Your task to perform on an android device: toggle notification dots Image 0: 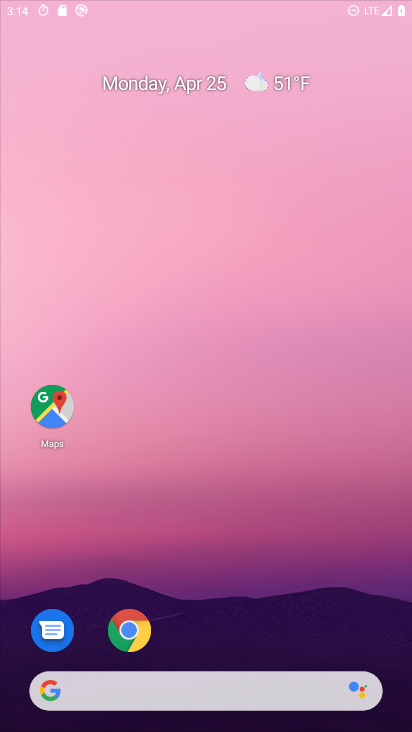
Step 0: drag from (222, 484) to (274, 187)
Your task to perform on an android device: toggle notification dots Image 1: 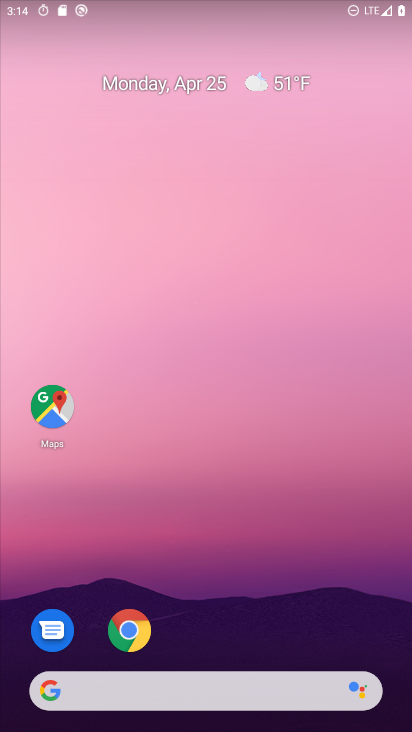
Step 1: drag from (172, 631) to (204, 249)
Your task to perform on an android device: toggle notification dots Image 2: 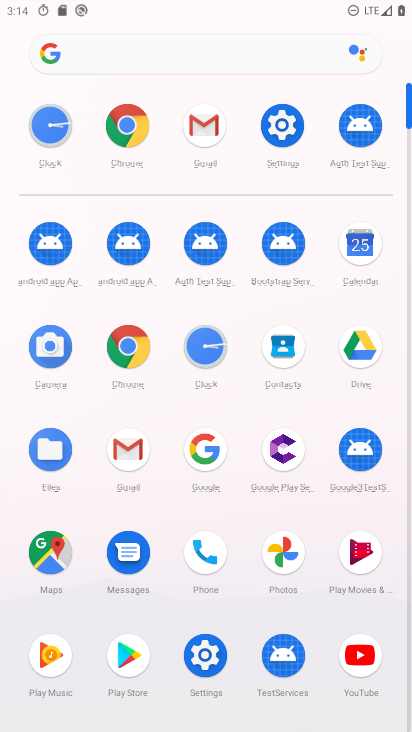
Step 2: click (196, 665)
Your task to perform on an android device: toggle notification dots Image 3: 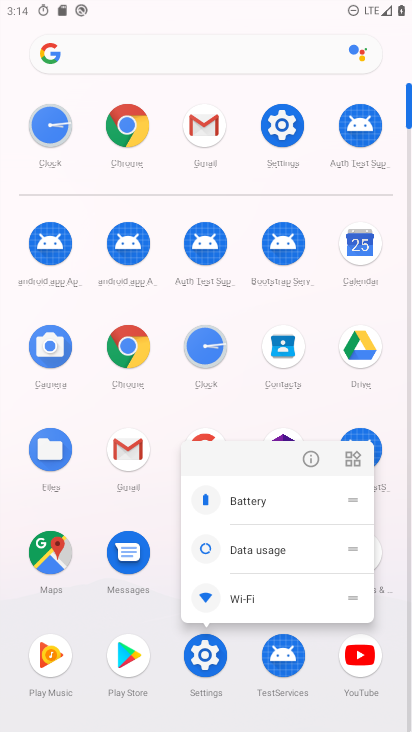
Step 3: click (318, 460)
Your task to perform on an android device: toggle notification dots Image 4: 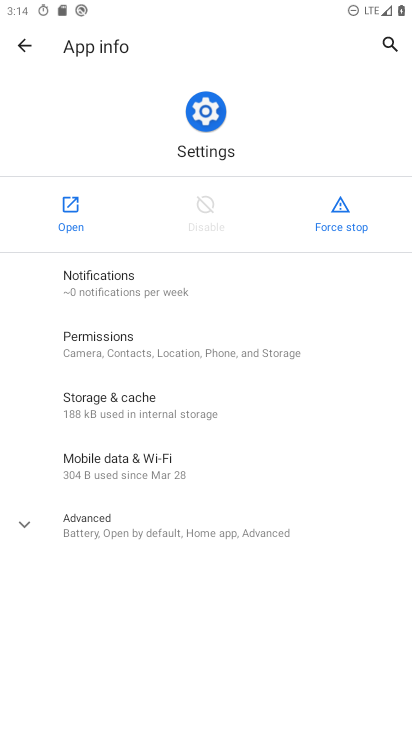
Step 4: click (67, 211)
Your task to perform on an android device: toggle notification dots Image 5: 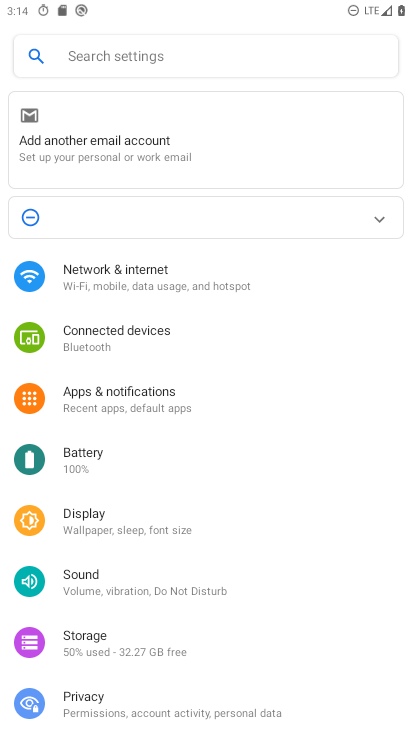
Step 5: click (157, 385)
Your task to perform on an android device: toggle notification dots Image 6: 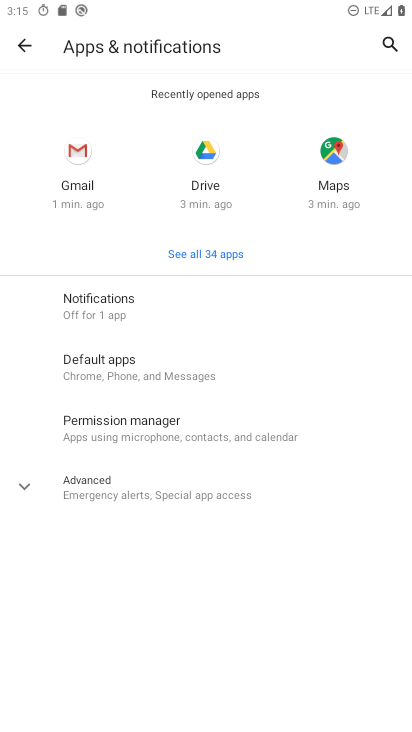
Step 6: click (158, 313)
Your task to perform on an android device: toggle notification dots Image 7: 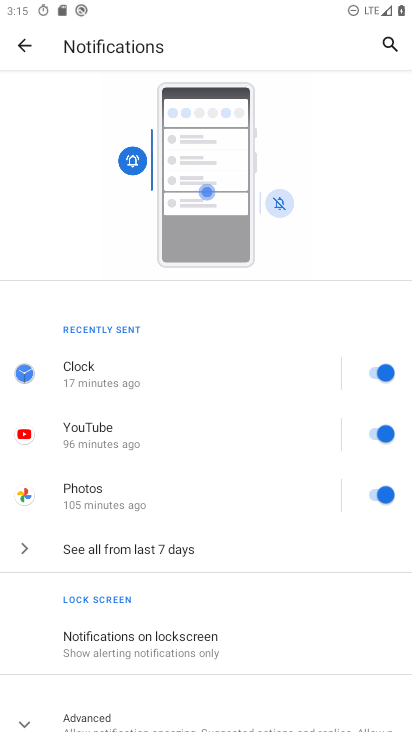
Step 7: drag from (200, 609) to (281, 250)
Your task to perform on an android device: toggle notification dots Image 8: 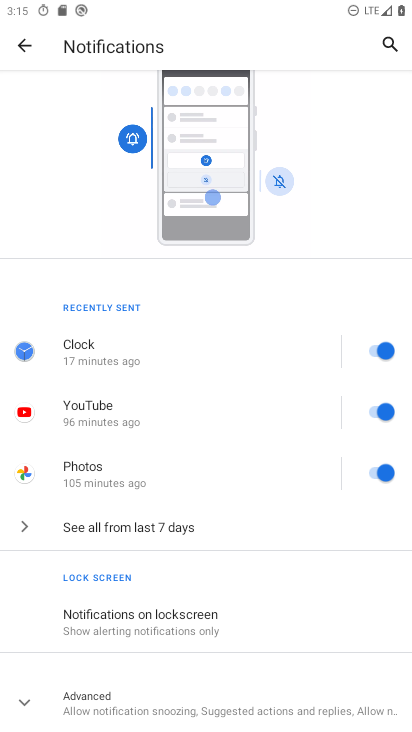
Step 8: click (155, 693)
Your task to perform on an android device: toggle notification dots Image 9: 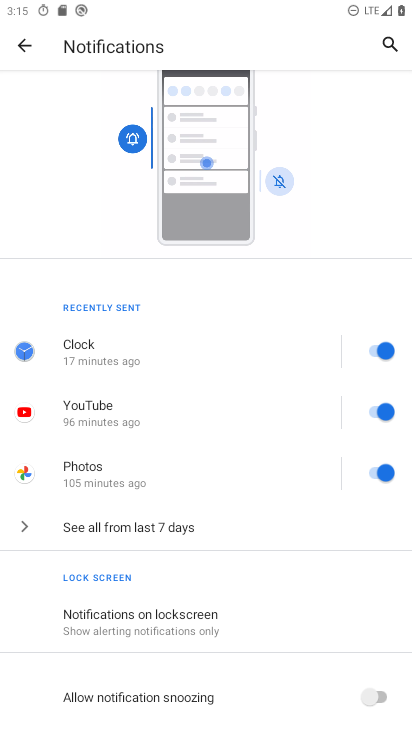
Step 9: drag from (246, 611) to (306, 203)
Your task to perform on an android device: toggle notification dots Image 10: 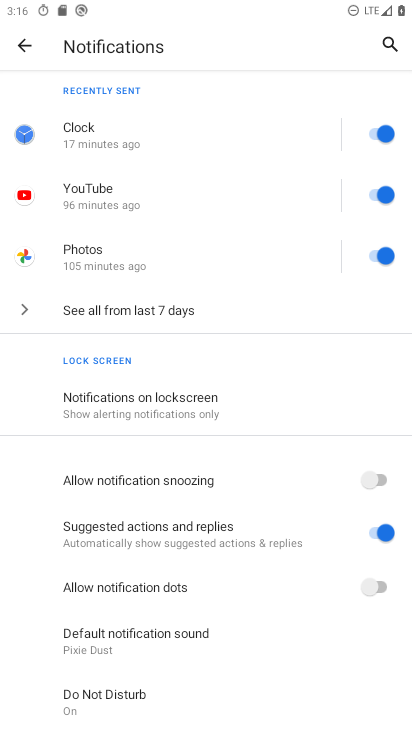
Step 10: click (354, 584)
Your task to perform on an android device: toggle notification dots Image 11: 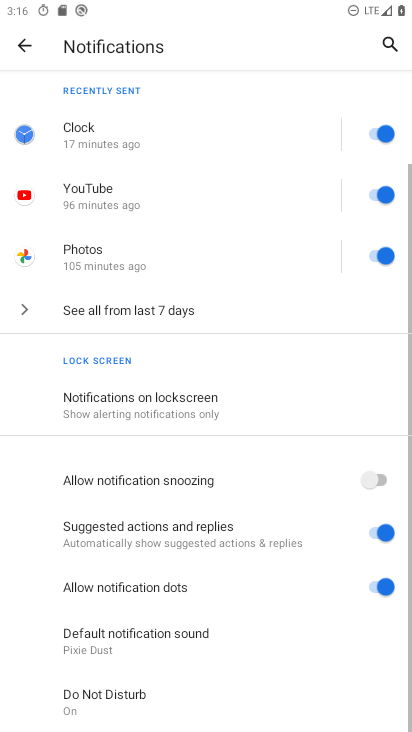
Step 11: task complete